Your task to perform on an android device: empty trash in google photos Image 0: 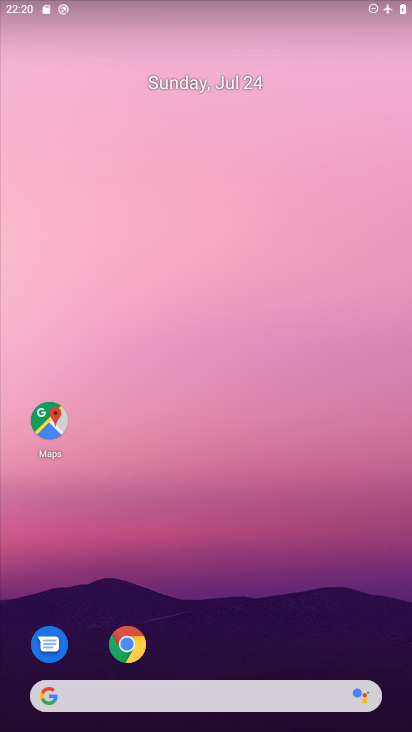
Step 0: drag from (347, 653) to (329, 50)
Your task to perform on an android device: empty trash in google photos Image 1: 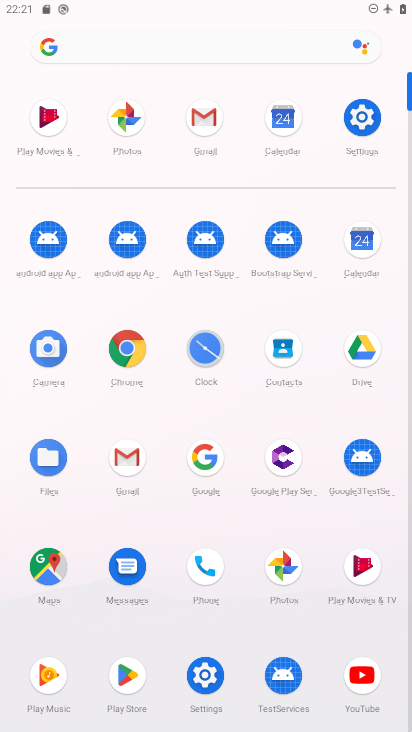
Step 1: click (282, 566)
Your task to perform on an android device: empty trash in google photos Image 2: 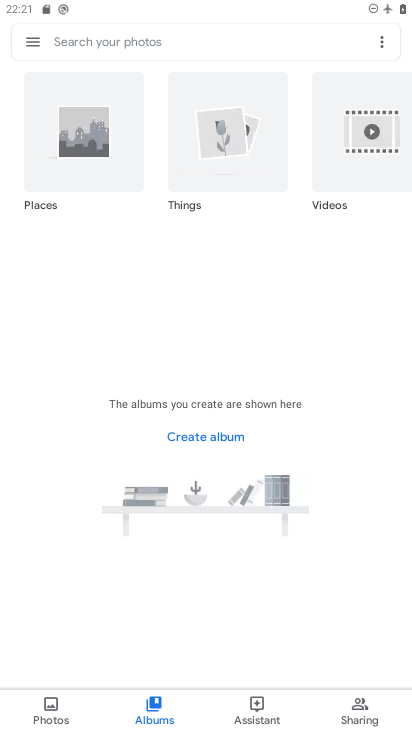
Step 2: click (27, 45)
Your task to perform on an android device: empty trash in google photos Image 3: 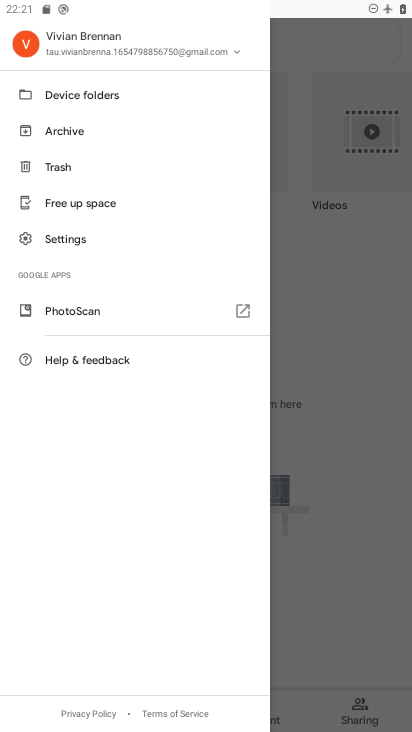
Step 3: click (53, 166)
Your task to perform on an android device: empty trash in google photos Image 4: 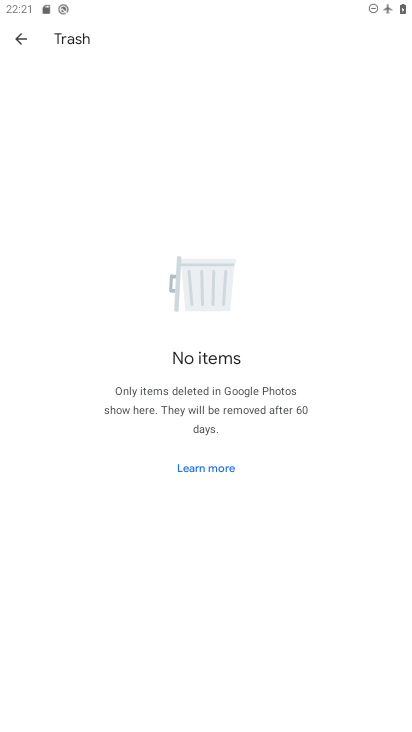
Step 4: task complete